Your task to perform on an android device: Search for "macbook pro 13 inch" on newegg, select the first entry, add it to the cart, then select checkout. Image 0: 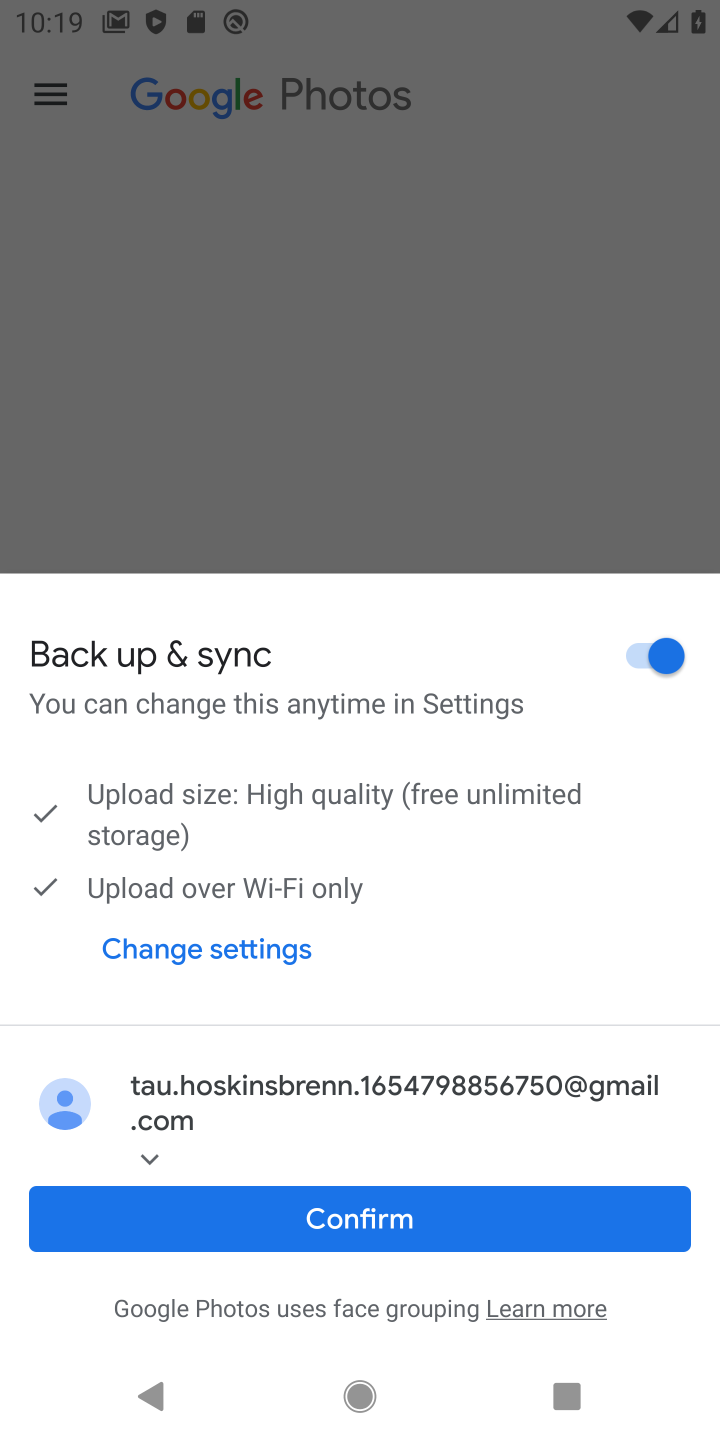
Step 0: press home button
Your task to perform on an android device: Search for "macbook pro 13 inch" on newegg, select the first entry, add it to the cart, then select checkout. Image 1: 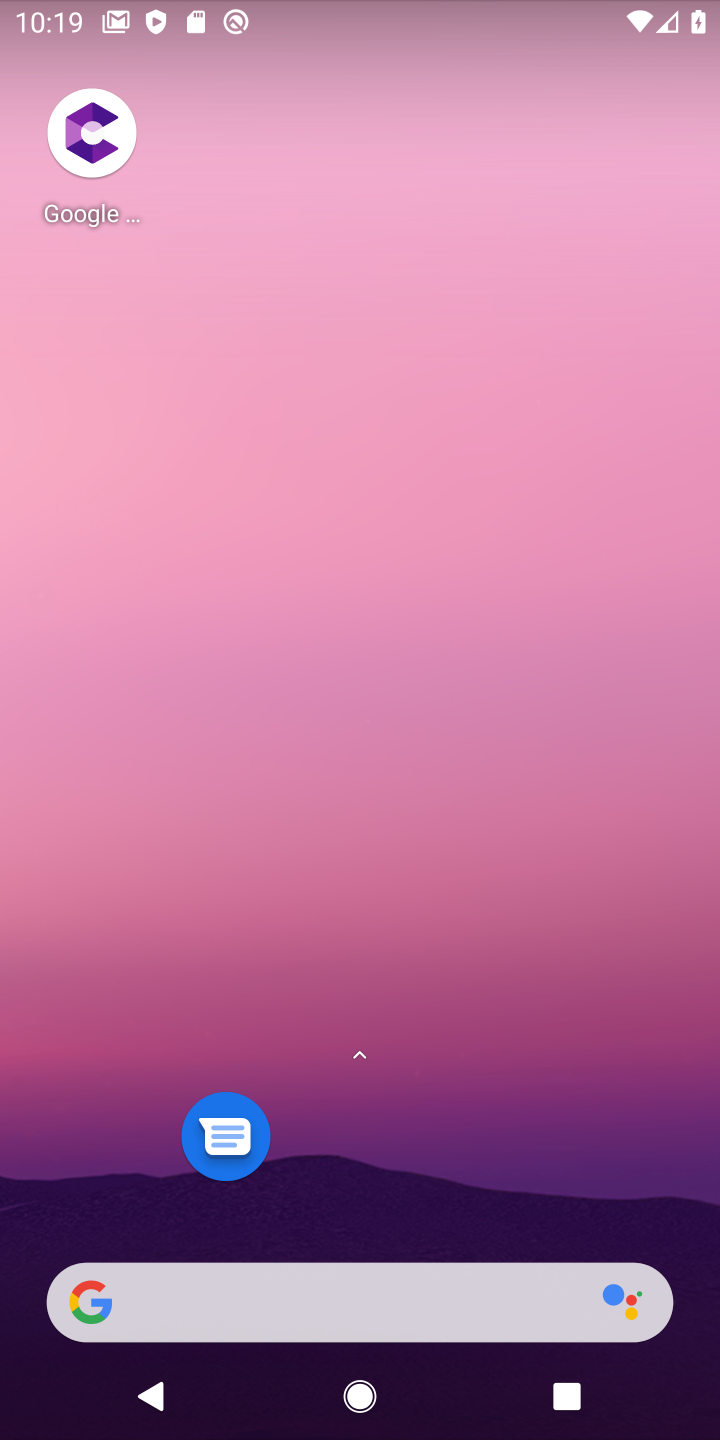
Step 1: drag from (486, 1095) to (444, 100)
Your task to perform on an android device: Search for "macbook pro 13 inch" on newegg, select the first entry, add it to the cart, then select checkout. Image 2: 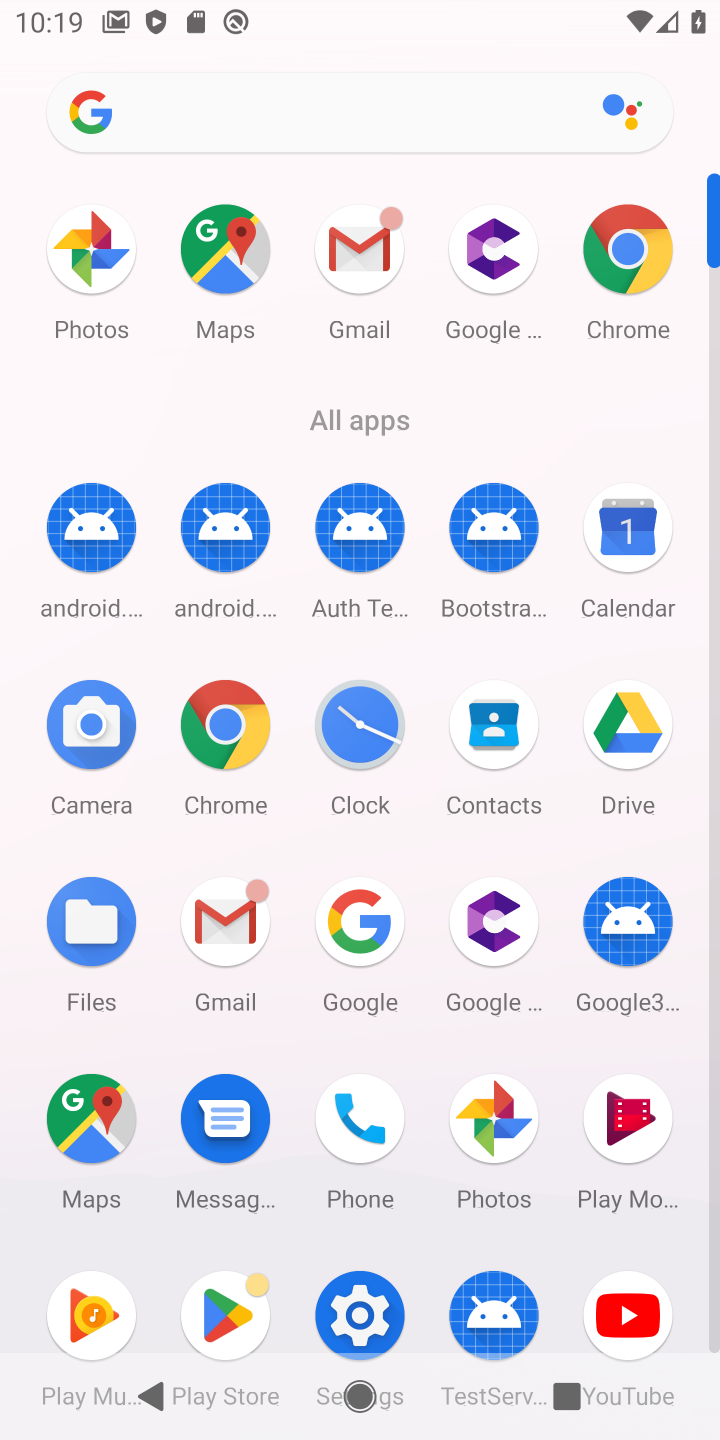
Step 2: click (208, 722)
Your task to perform on an android device: Search for "macbook pro 13 inch" on newegg, select the first entry, add it to the cart, then select checkout. Image 3: 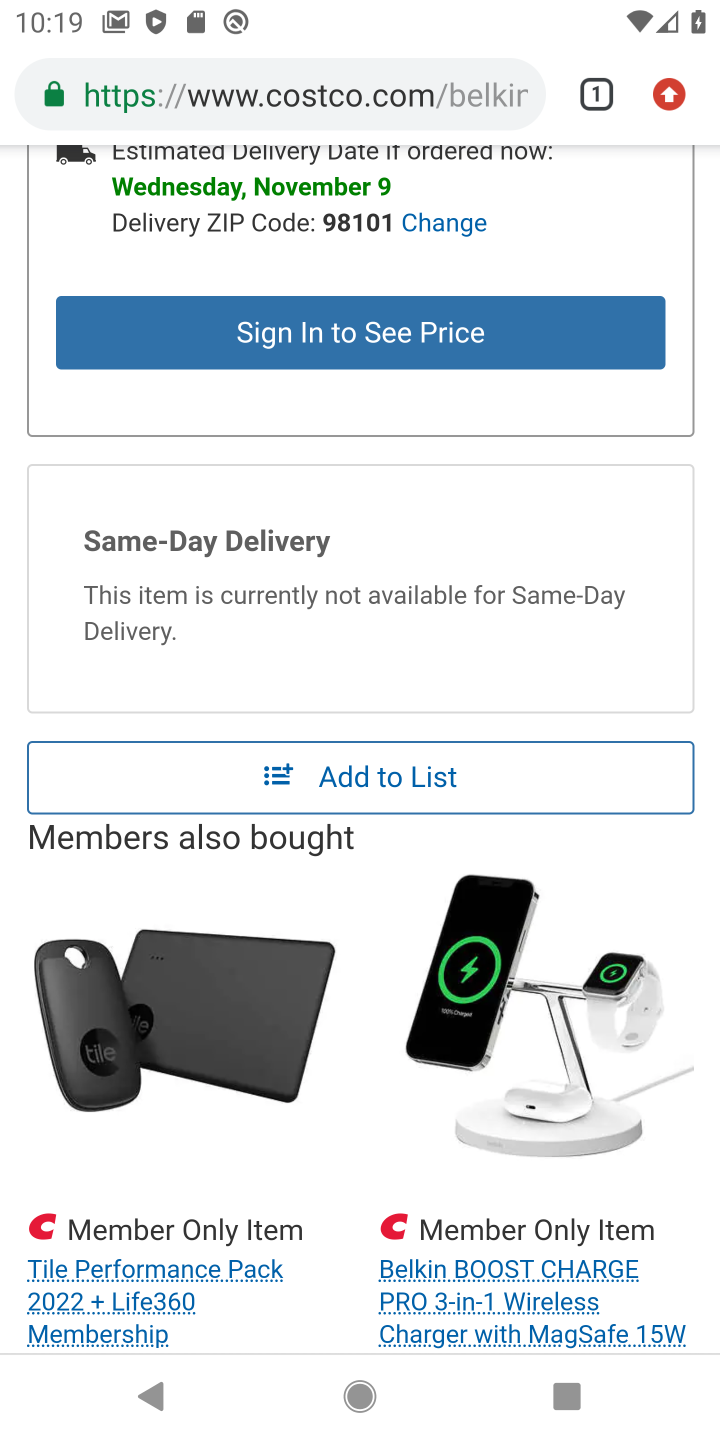
Step 3: click (362, 92)
Your task to perform on an android device: Search for "macbook pro 13 inch" on newegg, select the first entry, add it to the cart, then select checkout. Image 4: 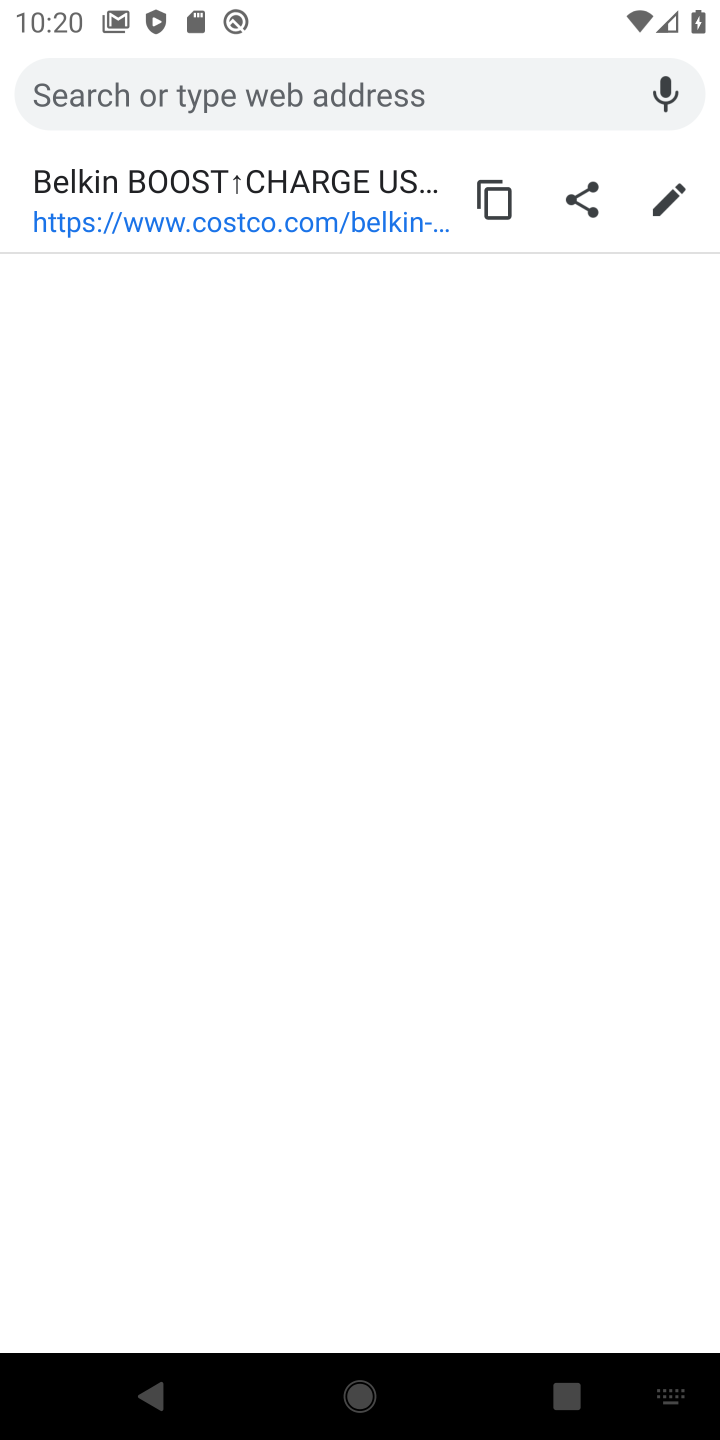
Step 4: type "newegg"
Your task to perform on an android device: Search for "macbook pro 13 inch" on newegg, select the first entry, add it to the cart, then select checkout. Image 5: 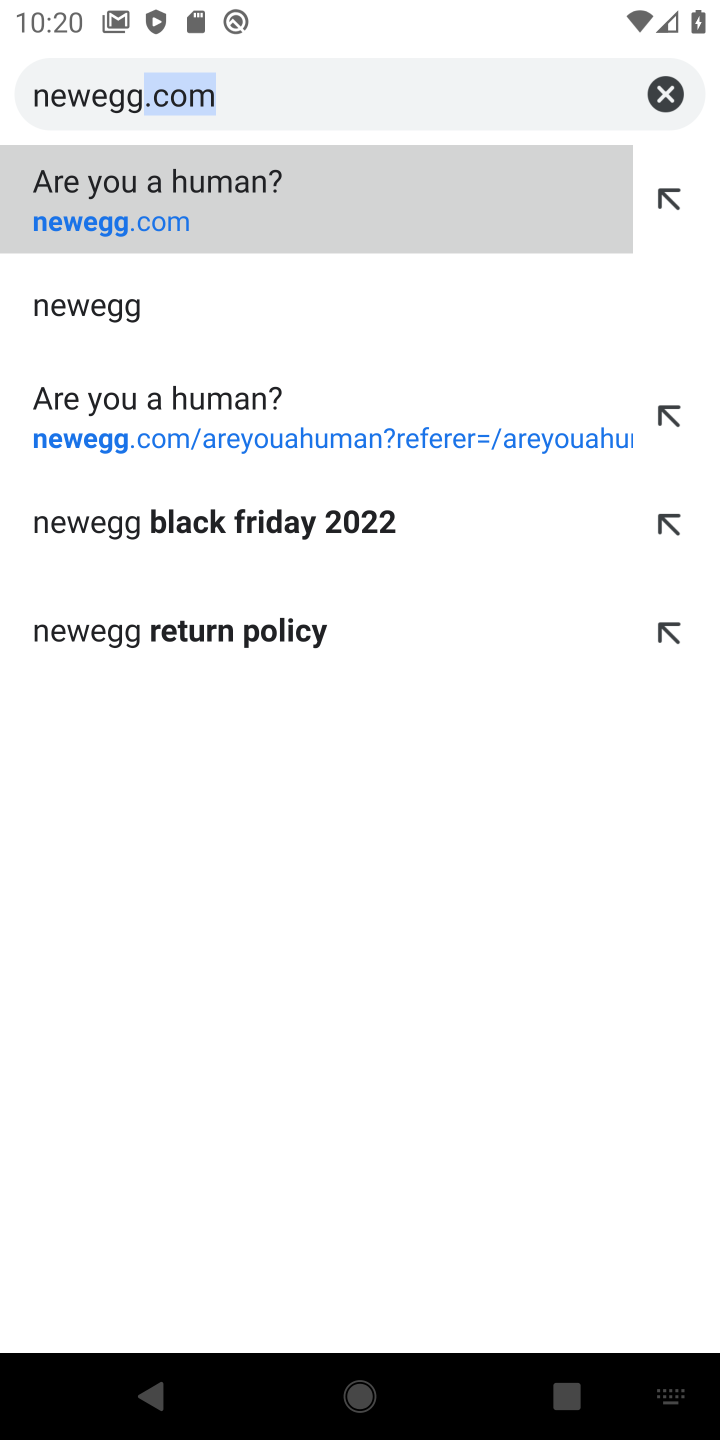
Step 5: click (94, 224)
Your task to perform on an android device: Search for "macbook pro 13 inch" on newegg, select the first entry, add it to the cart, then select checkout. Image 6: 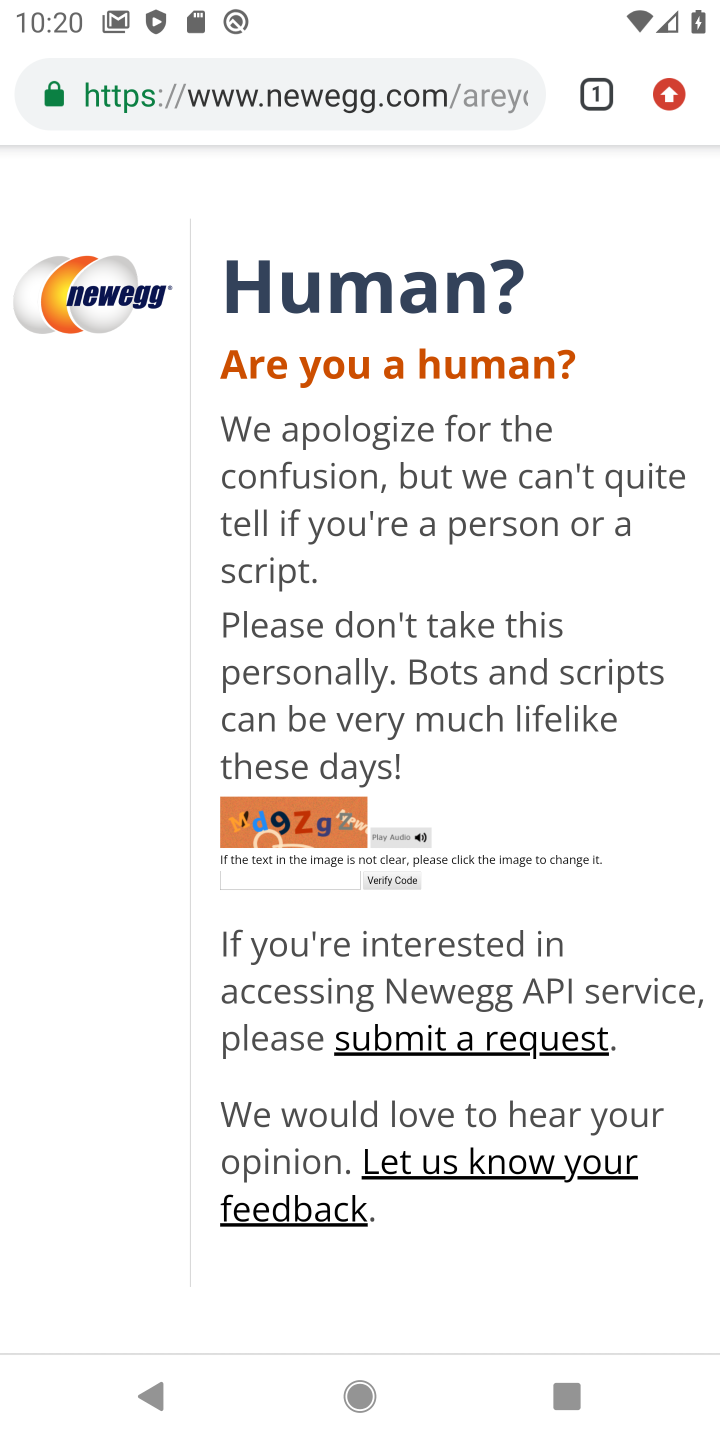
Step 6: task complete